Your task to perform on an android device: Show me the alarms in the clock app Image 0: 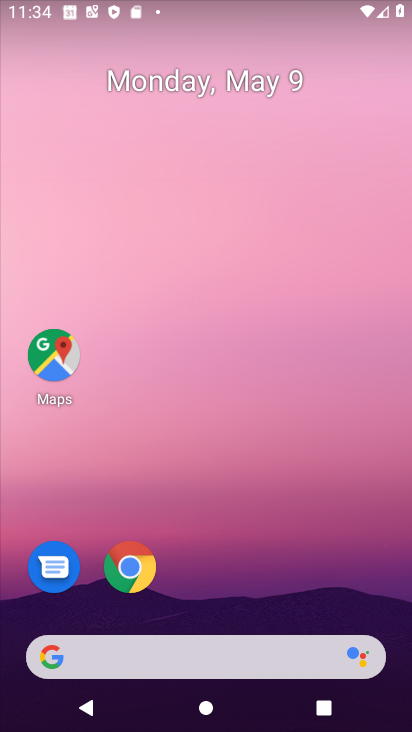
Step 0: drag from (169, 644) to (205, 70)
Your task to perform on an android device: Show me the alarms in the clock app Image 1: 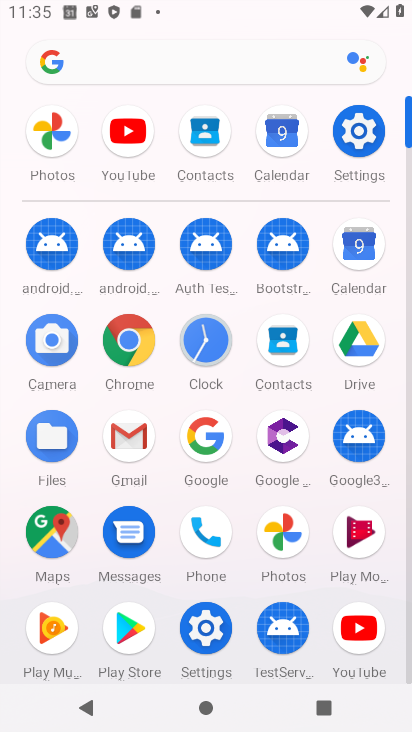
Step 1: click (211, 359)
Your task to perform on an android device: Show me the alarms in the clock app Image 2: 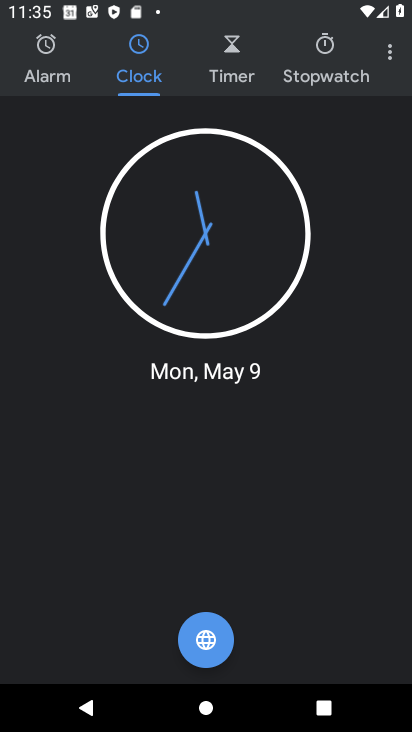
Step 2: click (37, 64)
Your task to perform on an android device: Show me the alarms in the clock app Image 3: 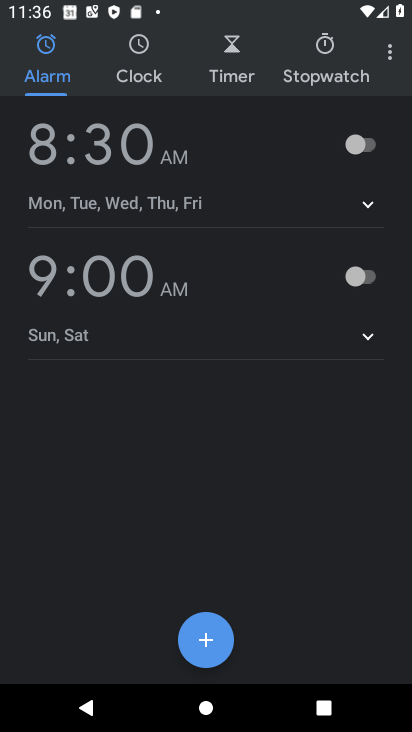
Step 3: click (202, 639)
Your task to perform on an android device: Show me the alarms in the clock app Image 4: 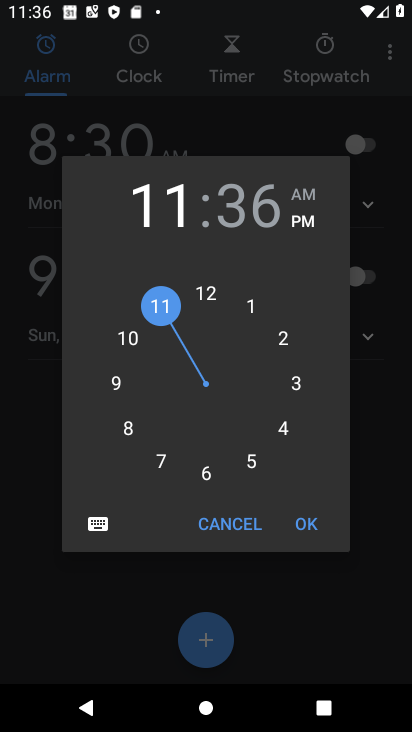
Step 4: task complete